Your task to perform on an android device: Play the last video I watched on Youtube Image 0: 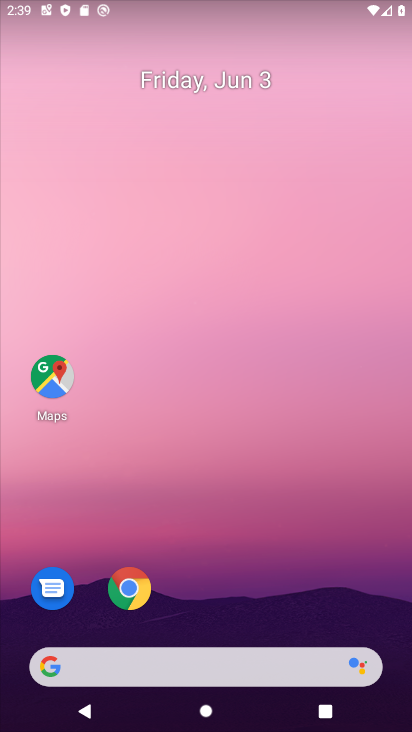
Step 0: drag from (254, 488) to (246, 94)
Your task to perform on an android device: Play the last video I watched on Youtube Image 1: 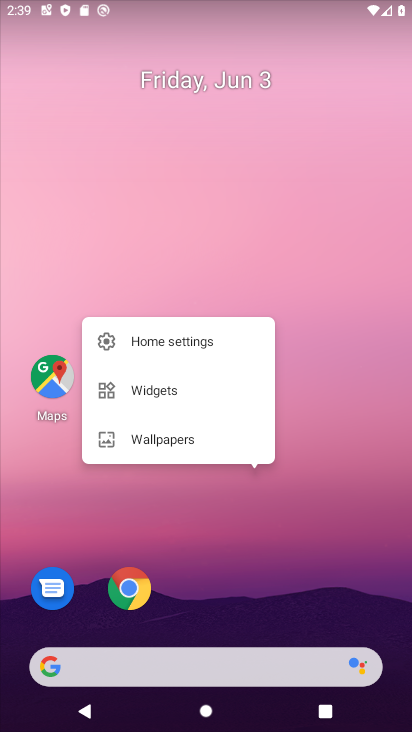
Step 1: drag from (235, 615) to (220, 101)
Your task to perform on an android device: Play the last video I watched on Youtube Image 2: 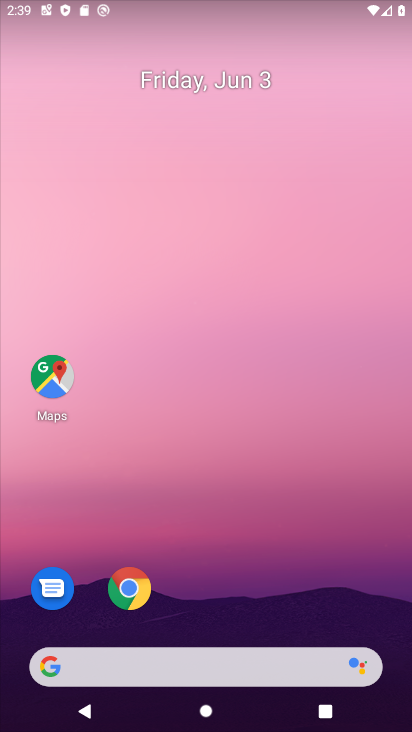
Step 2: drag from (217, 572) to (216, 72)
Your task to perform on an android device: Play the last video I watched on Youtube Image 3: 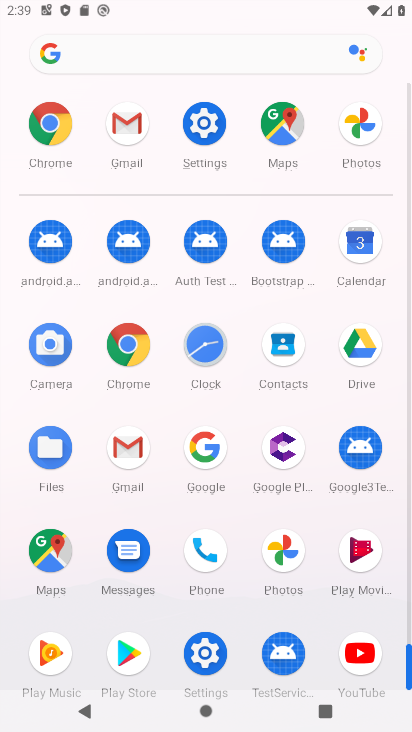
Step 3: drag from (242, 198) to (241, 0)
Your task to perform on an android device: Play the last video I watched on Youtube Image 4: 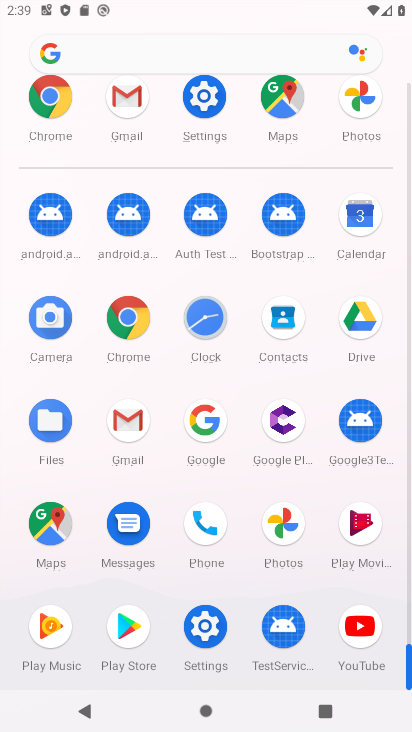
Step 4: click (355, 617)
Your task to perform on an android device: Play the last video I watched on Youtube Image 5: 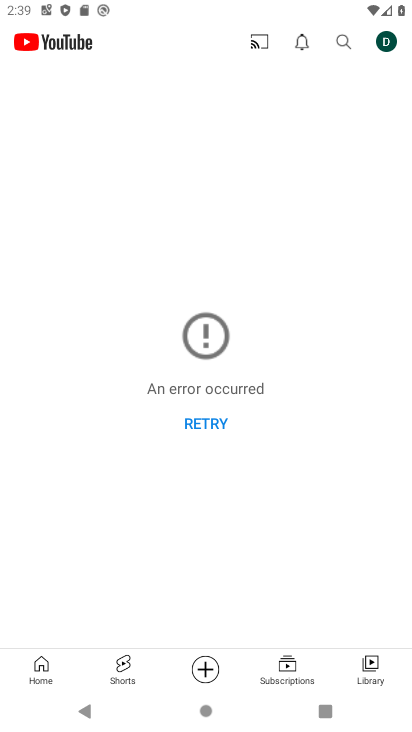
Step 5: click (363, 675)
Your task to perform on an android device: Play the last video I watched on Youtube Image 6: 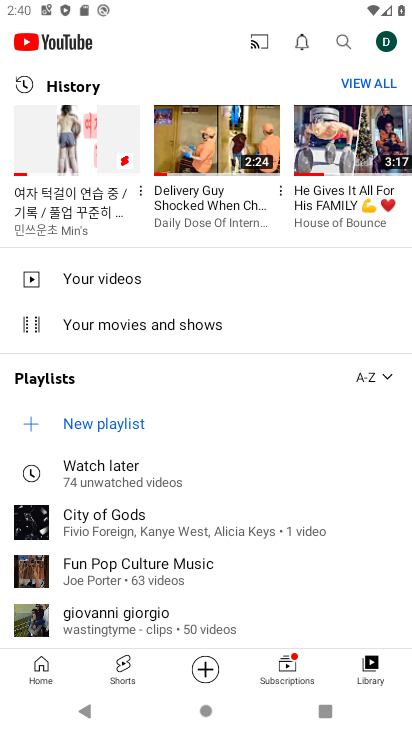
Step 6: click (368, 668)
Your task to perform on an android device: Play the last video I watched on Youtube Image 7: 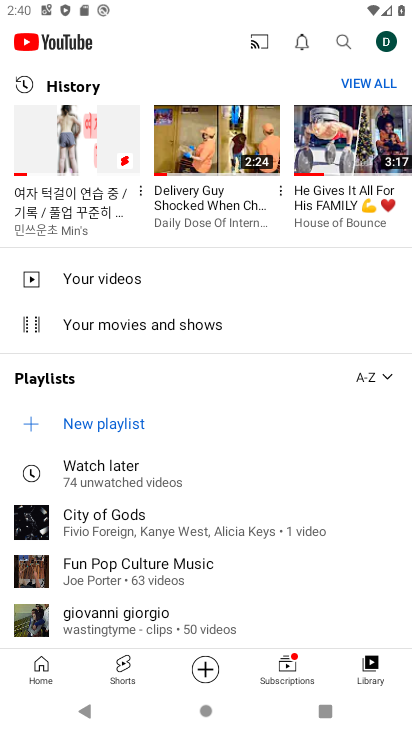
Step 7: click (98, 177)
Your task to perform on an android device: Play the last video I watched on Youtube Image 8: 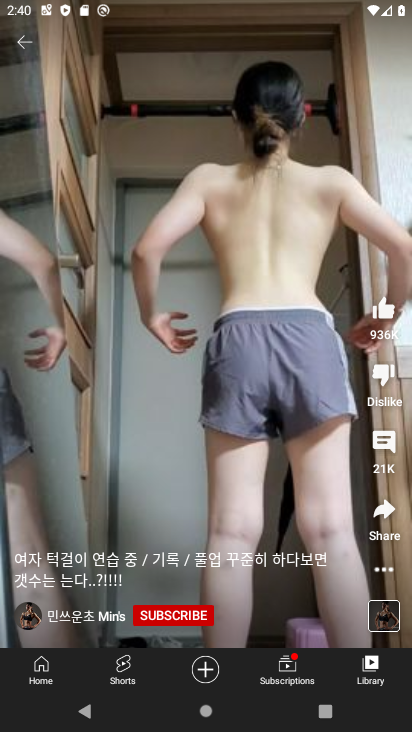
Step 8: click (213, 366)
Your task to perform on an android device: Play the last video I watched on Youtube Image 9: 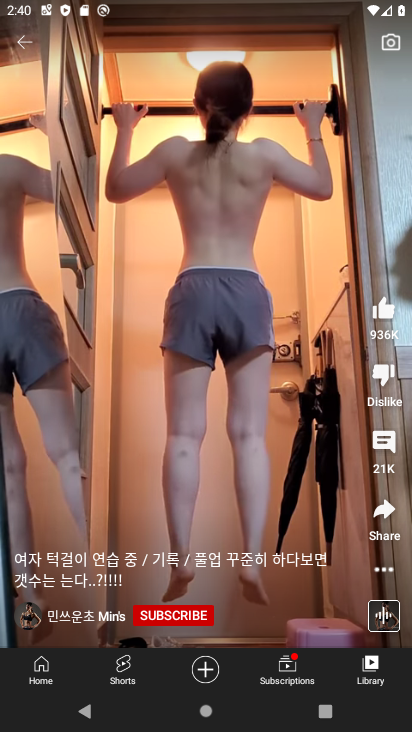
Step 9: task complete